Your task to perform on an android device: Go to ESPN.com Image 0: 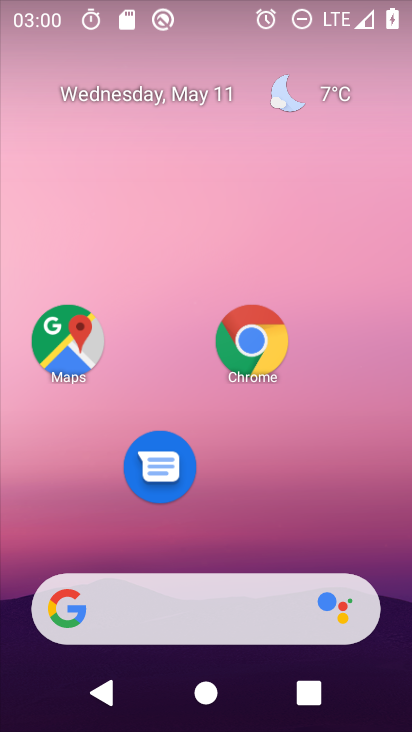
Step 0: press home button
Your task to perform on an android device: Go to ESPN.com Image 1: 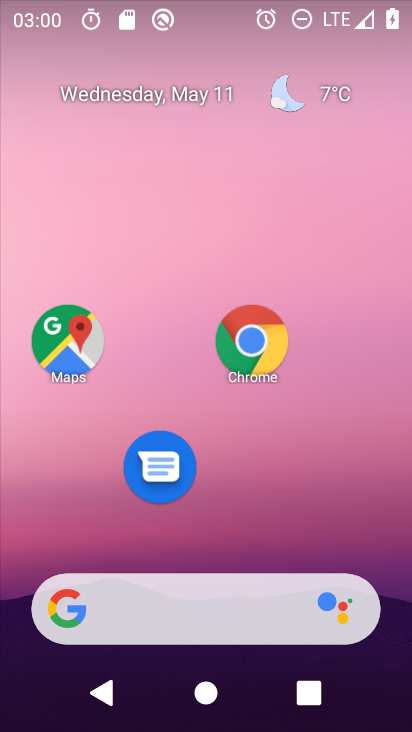
Step 1: drag from (188, 618) to (252, 206)
Your task to perform on an android device: Go to ESPN.com Image 2: 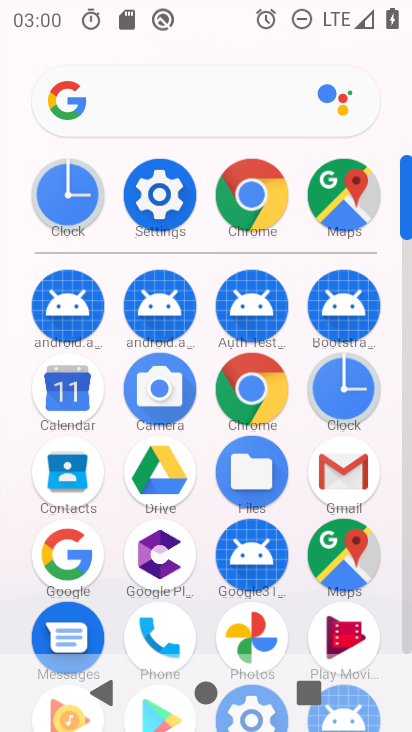
Step 2: click (261, 200)
Your task to perform on an android device: Go to ESPN.com Image 3: 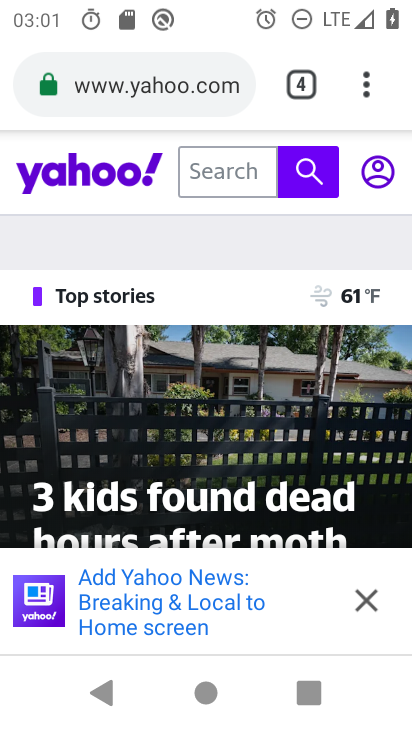
Step 3: drag from (369, 95) to (180, 174)
Your task to perform on an android device: Go to ESPN.com Image 4: 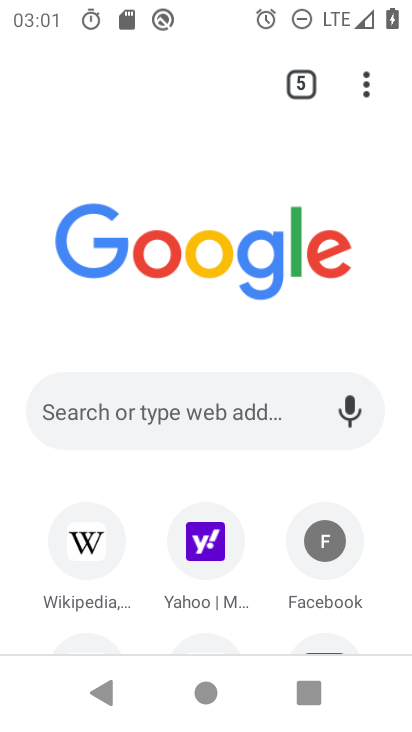
Step 4: drag from (153, 487) to (281, 65)
Your task to perform on an android device: Go to ESPN.com Image 5: 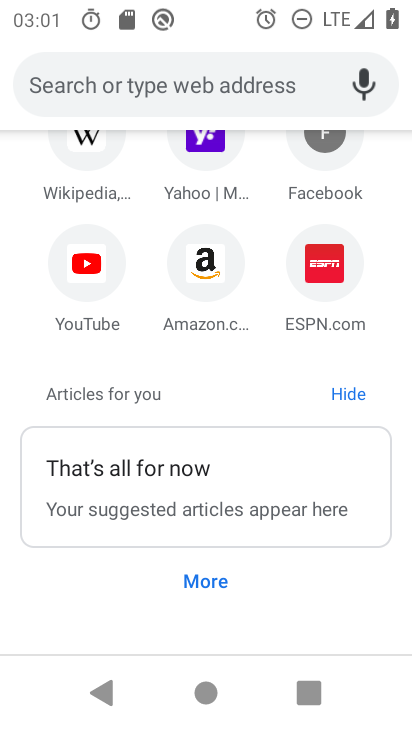
Step 5: click (331, 270)
Your task to perform on an android device: Go to ESPN.com Image 6: 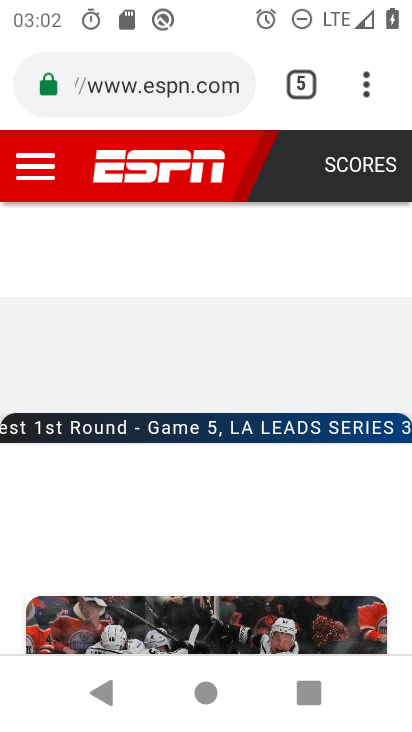
Step 6: task complete